Your task to perform on an android device: Open privacy settings Image 0: 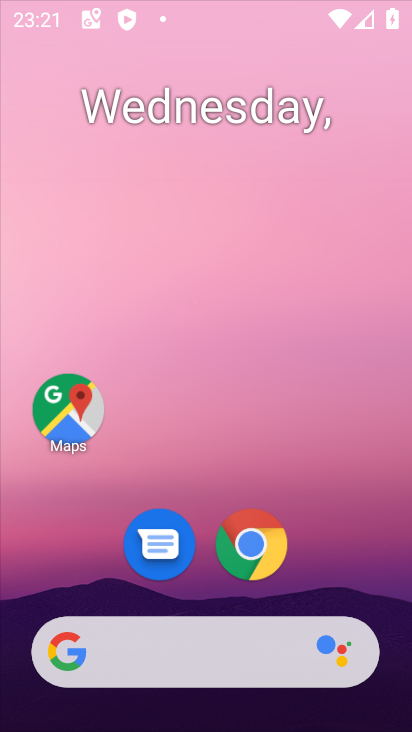
Step 0: drag from (395, 394) to (374, 98)
Your task to perform on an android device: Open privacy settings Image 1: 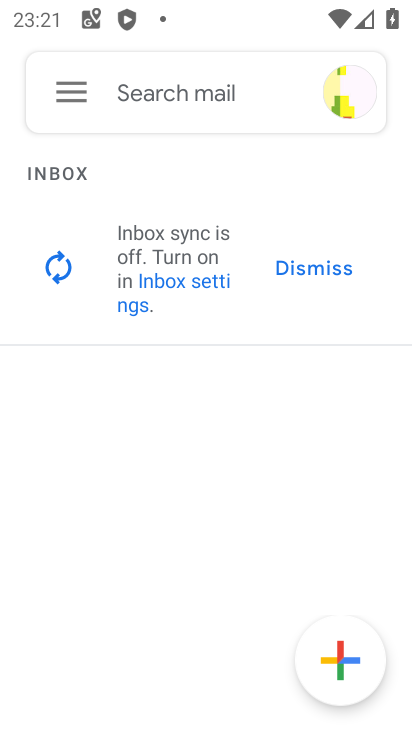
Step 1: press home button
Your task to perform on an android device: Open privacy settings Image 2: 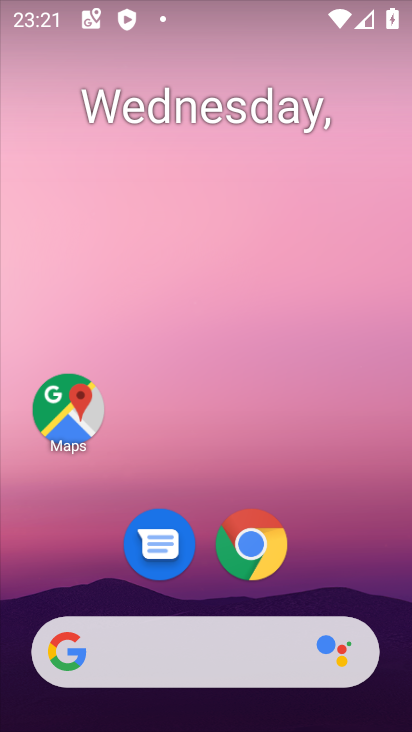
Step 2: drag from (361, 574) to (215, 86)
Your task to perform on an android device: Open privacy settings Image 3: 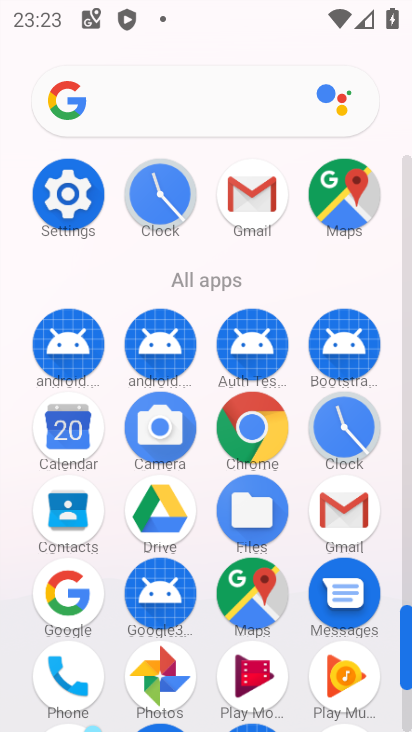
Step 3: click (58, 201)
Your task to perform on an android device: Open privacy settings Image 4: 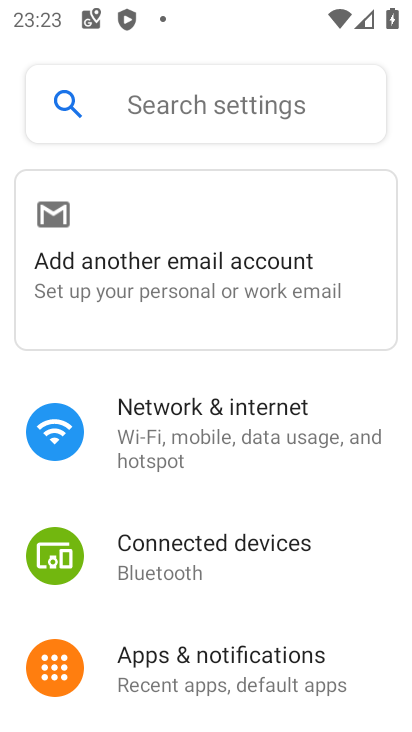
Step 4: drag from (263, 598) to (190, 106)
Your task to perform on an android device: Open privacy settings Image 5: 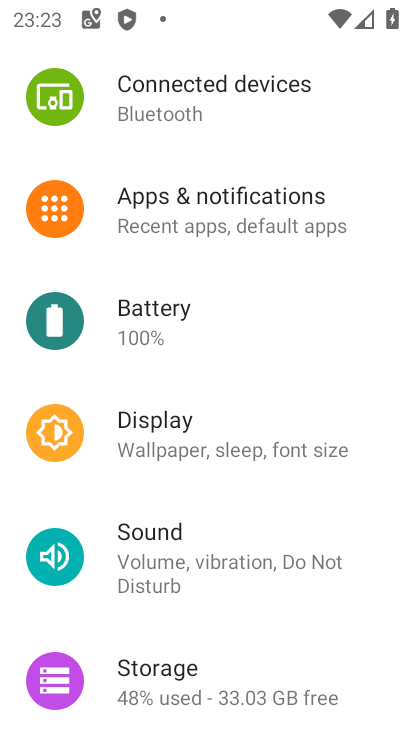
Step 5: drag from (201, 614) to (179, 81)
Your task to perform on an android device: Open privacy settings Image 6: 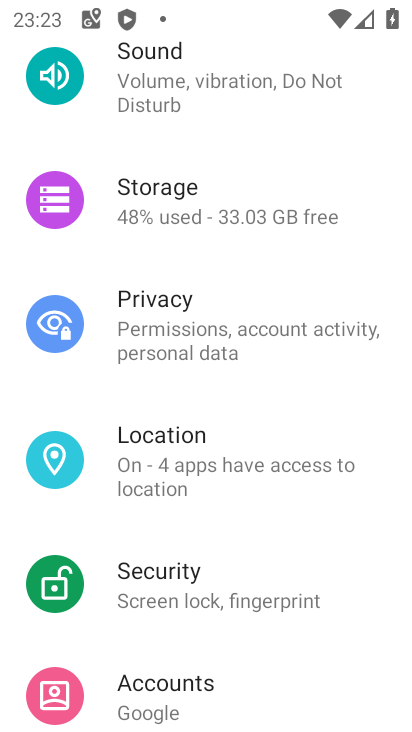
Step 6: click (201, 362)
Your task to perform on an android device: Open privacy settings Image 7: 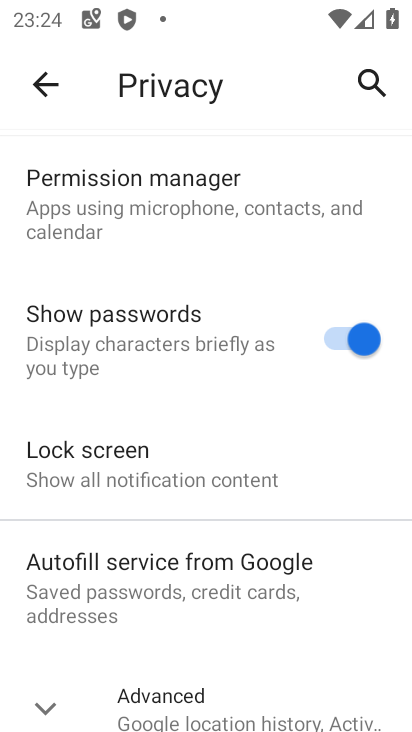
Step 7: task complete